Your task to perform on an android device: turn on the 12-hour format for clock Image 0: 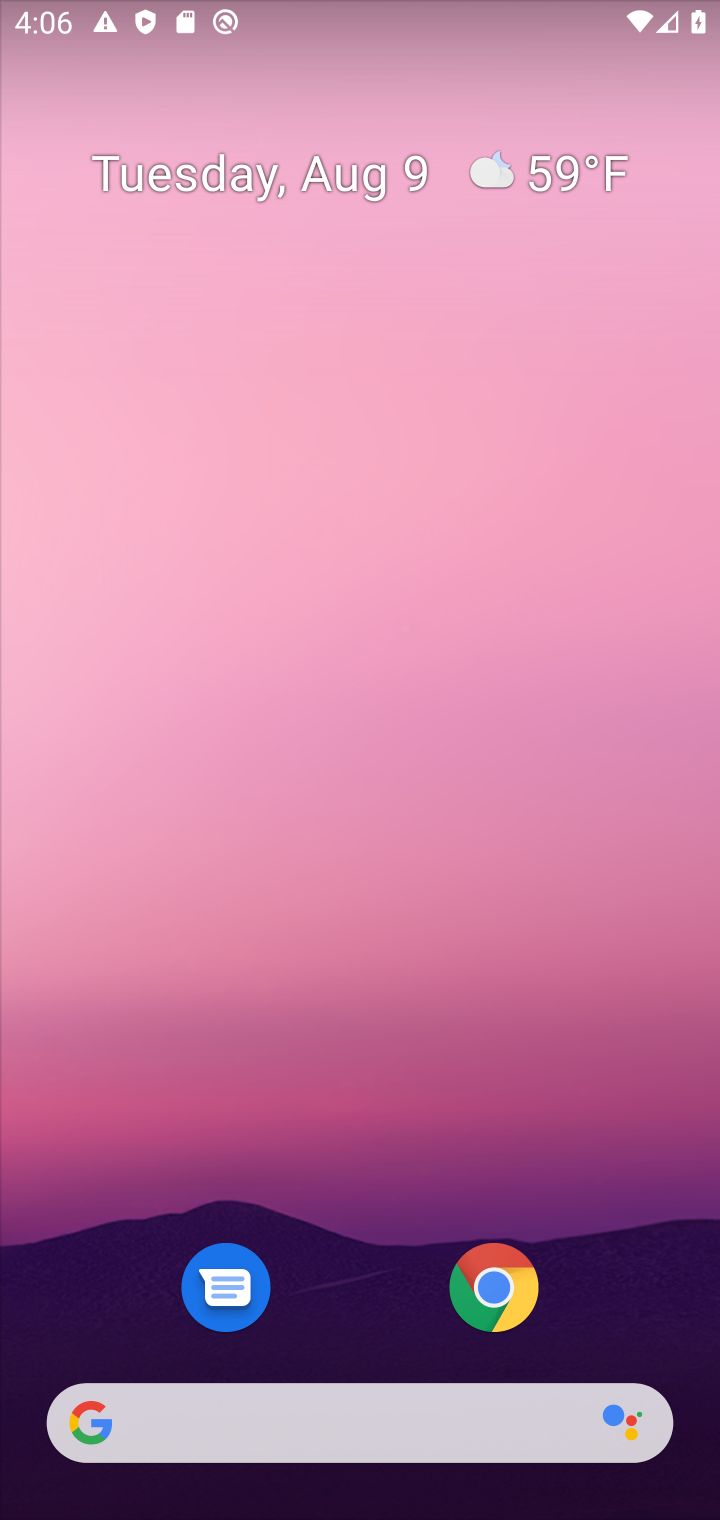
Step 0: drag from (392, 1054) to (363, 346)
Your task to perform on an android device: turn on the 12-hour format for clock Image 1: 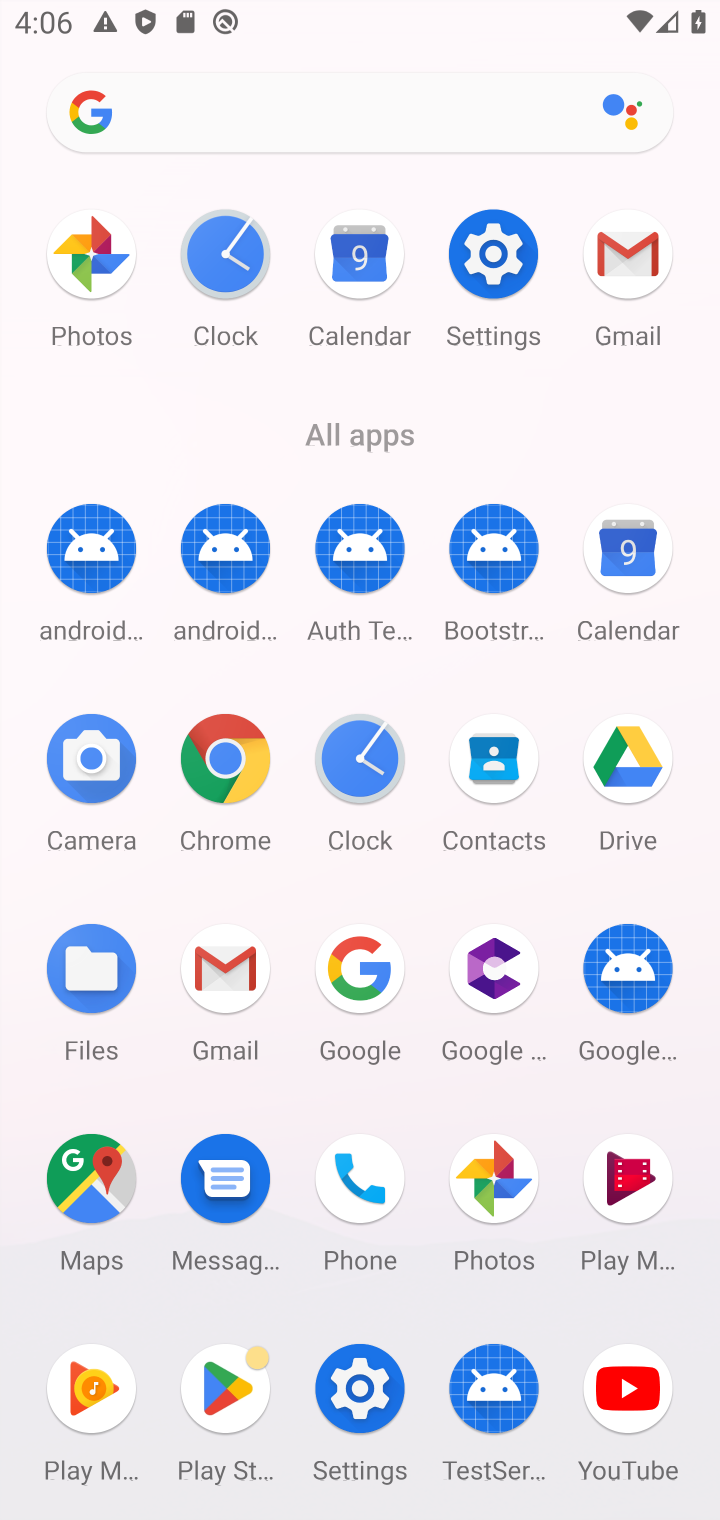
Step 1: click (207, 263)
Your task to perform on an android device: turn on the 12-hour format for clock Image 2: 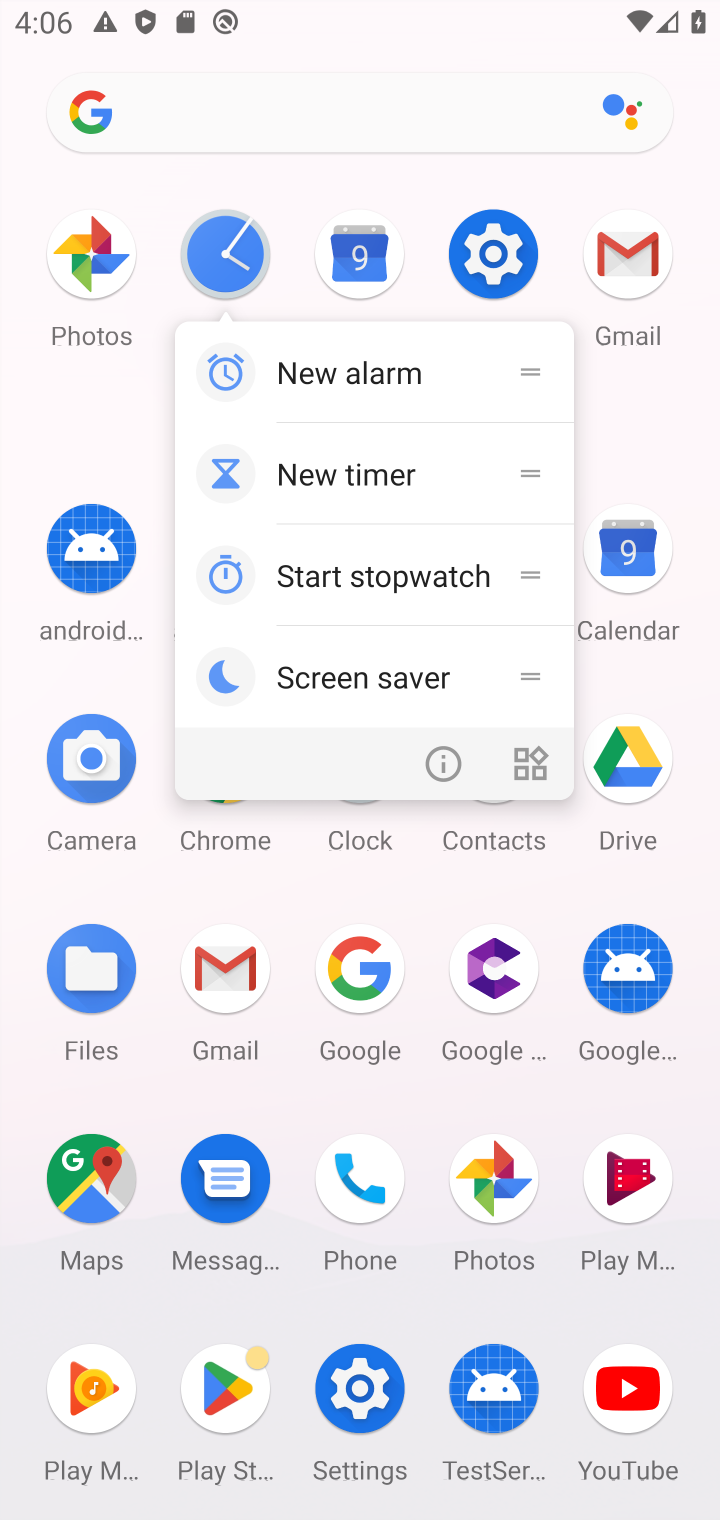
Step 2: click (228, 277)
Your task to perform on an android device: turn on the 12-hour format for clock Image 3: 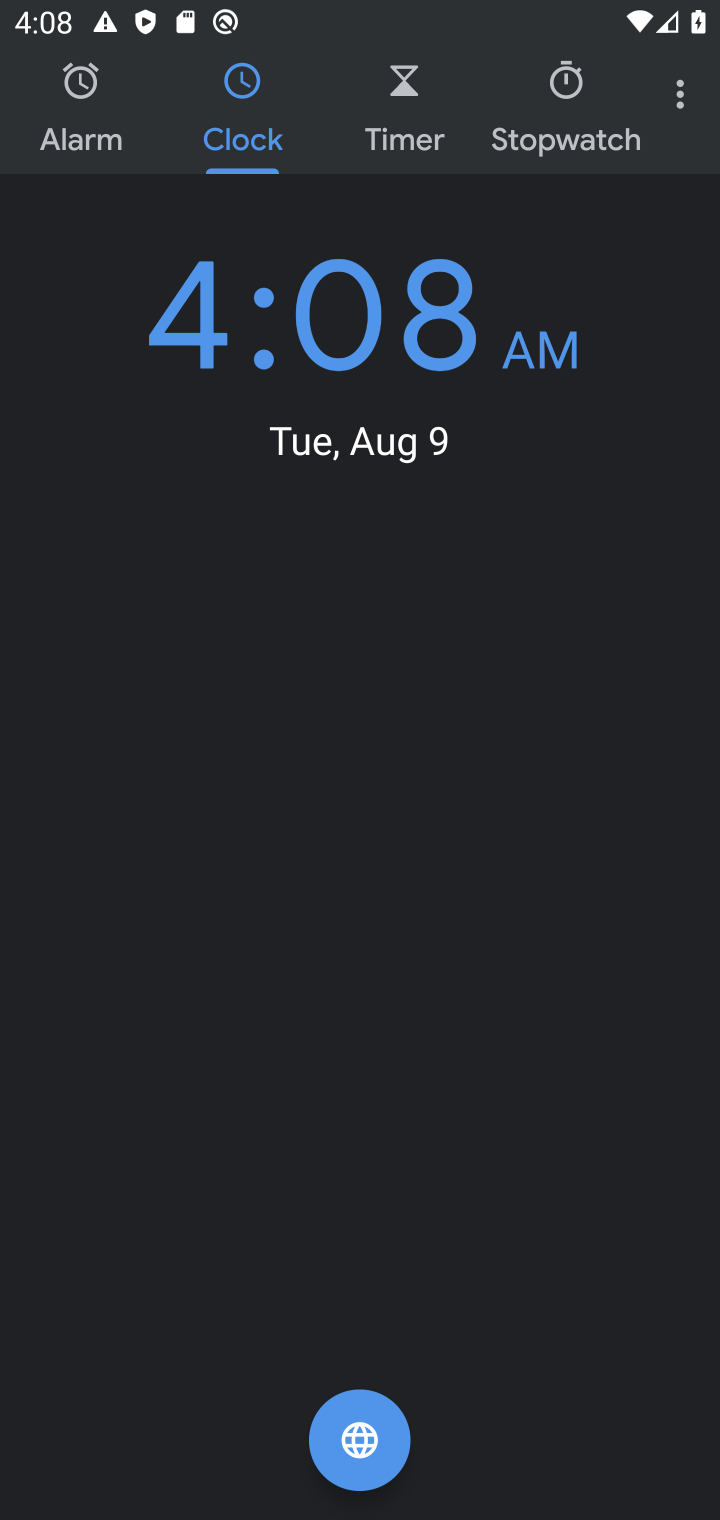
Step 3: task complete